Your task to perform on an android device: Search for Italian restaurants on Maps Image 0: 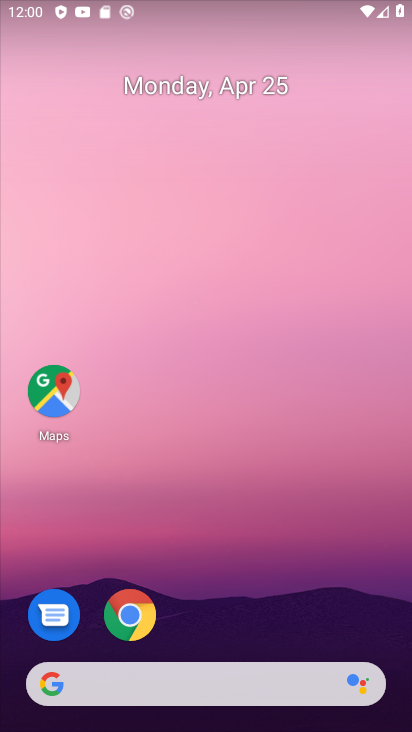
Step 0: drag from (363, 618) to (378, 105)
Your task to perform on an android device: Search for Italian restaurants on Maps Image 1: 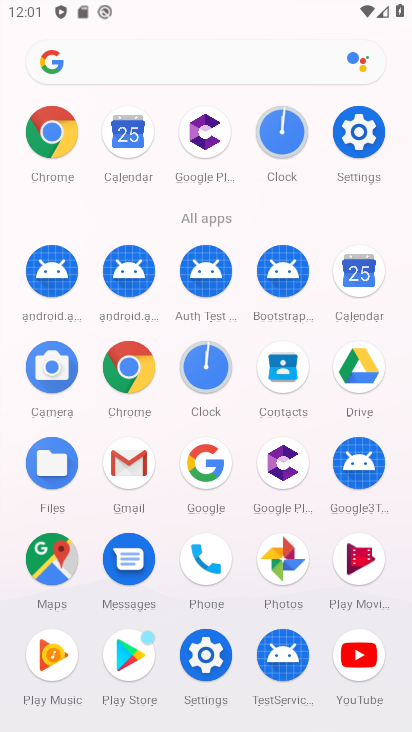
Step 1: click (54, 558)
Your task to perform on an android device: Search for Italian restaurants on Maps Image 2: 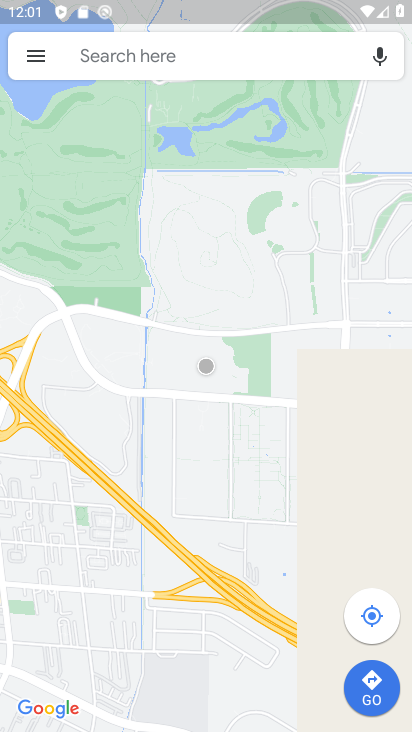
Step 2: click (205, 49)
Your task to perform on an android device: Search for Italian restaurants on Maps Image 3: 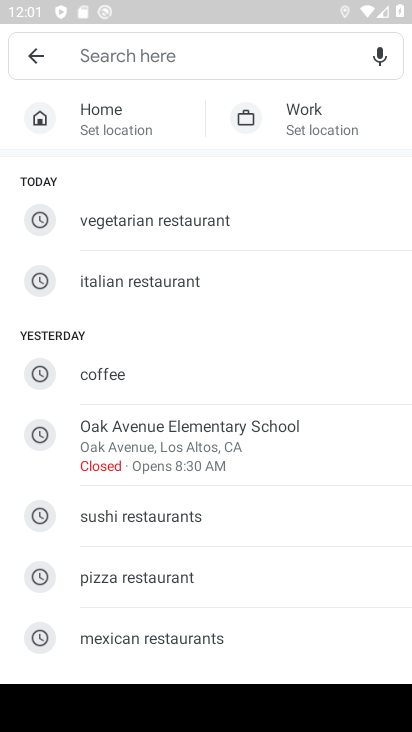
Step 3: type "italian restaurants"
Your task to perform on an android device: Search for Italian restaurants on Maps Image 4: 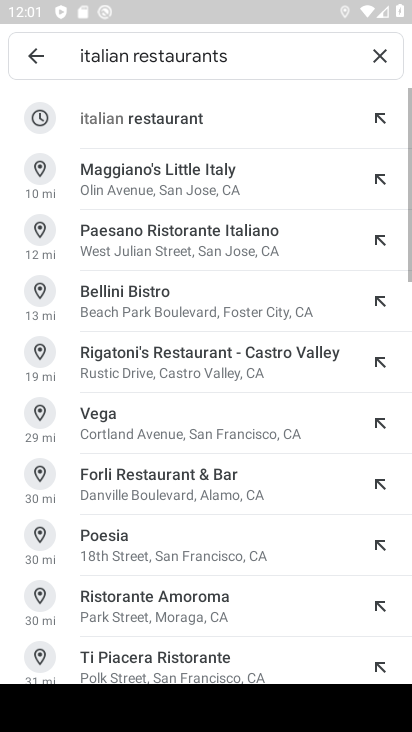
Step 4: click (158, 116)
Your task to perform on an android device: Search for Italian restaurants on Maps Image 5: 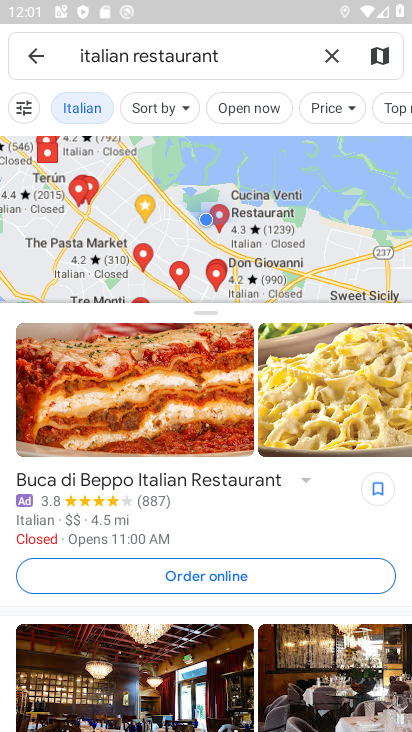
Step 5: task complete